Your task to perform on an android device: turn off location history Image 0: 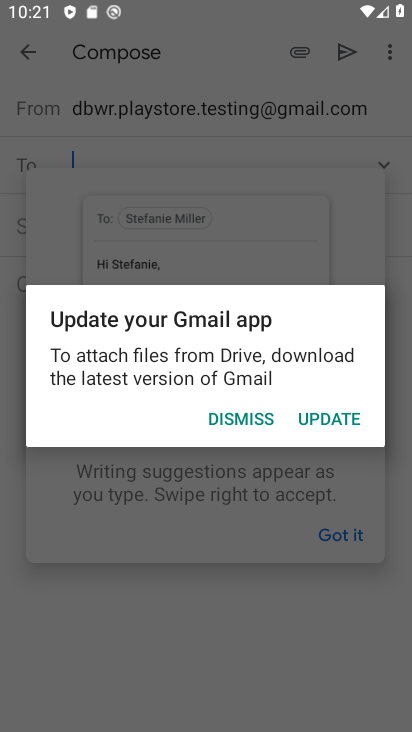
Step 0: press home button
Your task to perform on an android device: turn off location history Image 1: 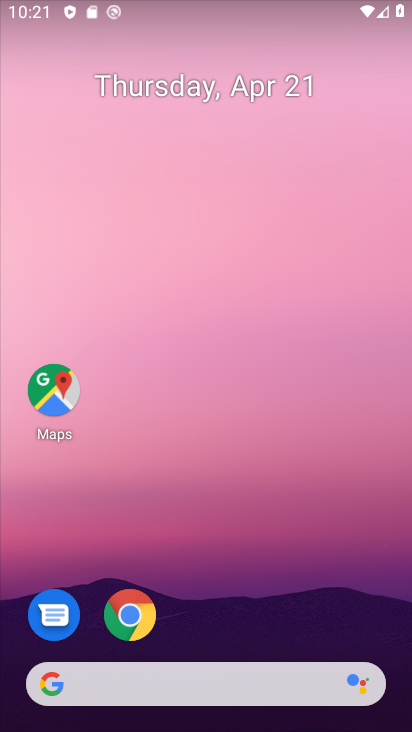
Step 1: drag from (238, 643) to (285, 50)
Your task to perform on an android device: turn off location history Image 2: 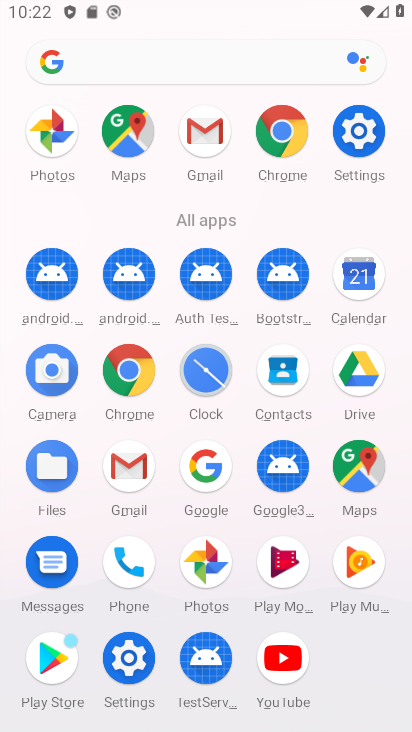
Step 2: click (356, 132)
Your task to perform on an android device: turn off location history Image 3: 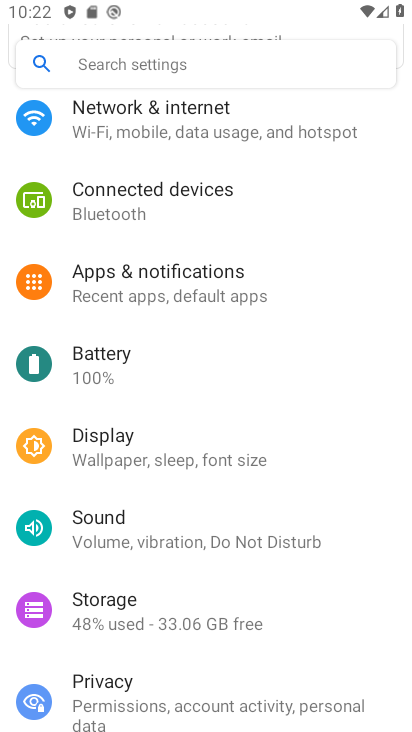
Step 3: drag from (172, 495) to (246, 236)
Your task to perform on an android device: turn off location history Image 4: 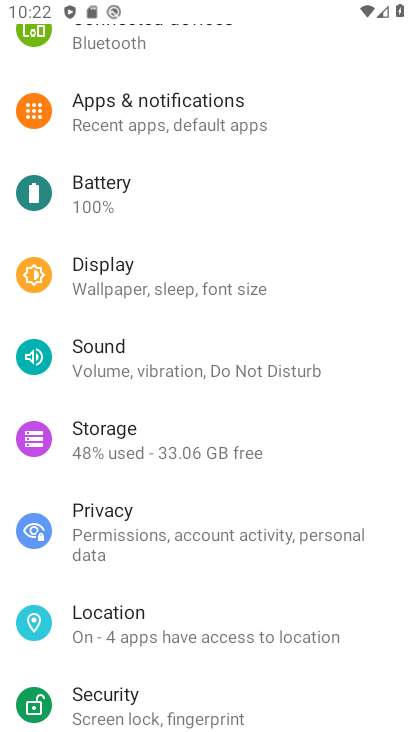
Step 4: click (218, 631)
Your task to perform on an android device: turn off location history Image 5: 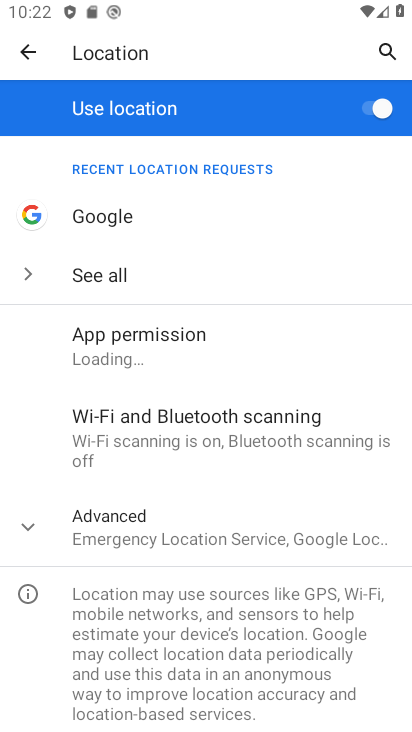
Step 5: click (174, 544)
Your task to perform on an android device: turn off location history Image 6: 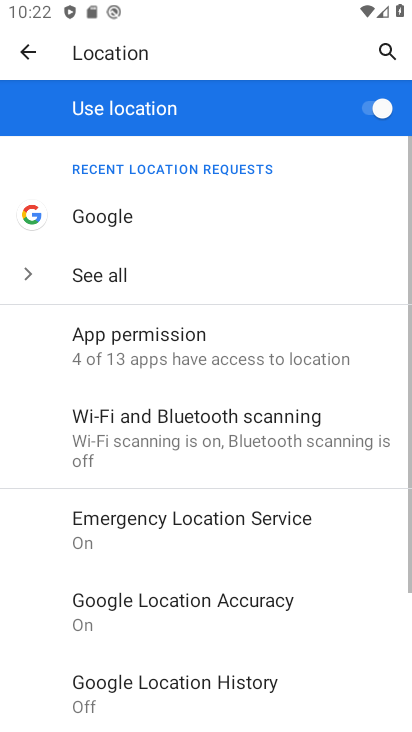
Step 6: drag from (231, 668) to (260, 447)
Your task to perform on an android device: turn off location history Image 7: 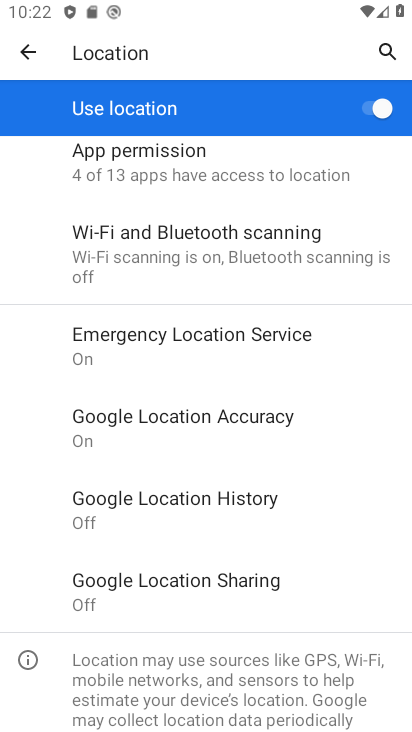
Step 7: click (220, 513)
Your task to perform on an android device: turn off location history Image 8: 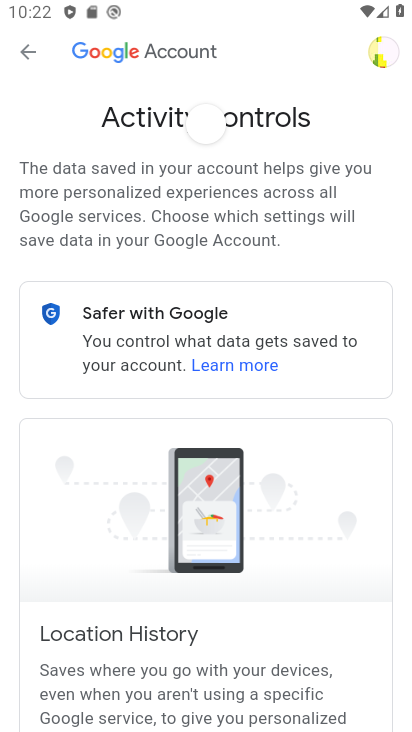
Step 8: drag from (238, 489) to (296, 156)
Your task to perform on an android device: turn off location history Image 9: 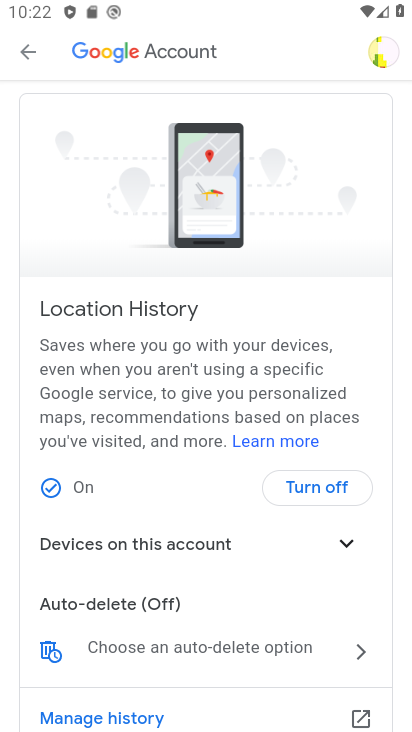
Step 9: click (336, 475)
Your task to perform on an android device: turn off location history Image 10: 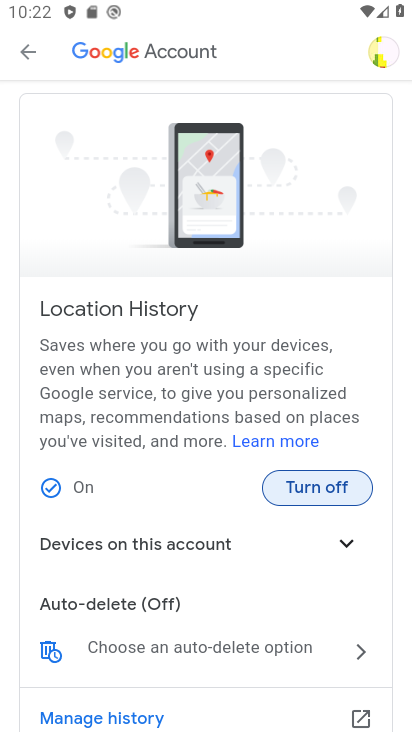
Step 10: click (339, 483)
Your task to perform on an android device: turn off location history Image 11: 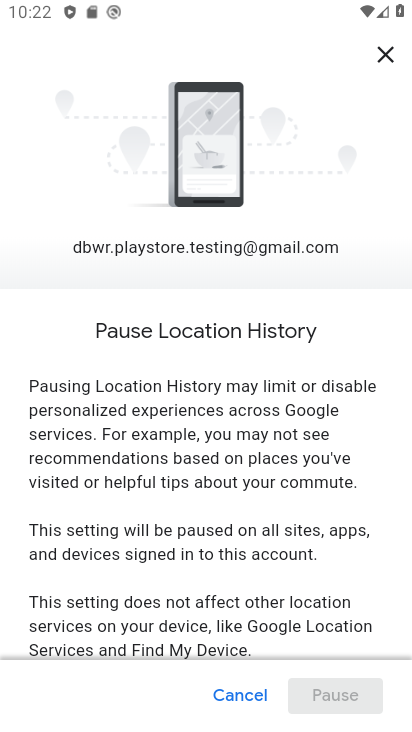
Step 11: drag from (209, 542) to (230, 163)
Your task to perform on an android device: turn off location history Image 12: 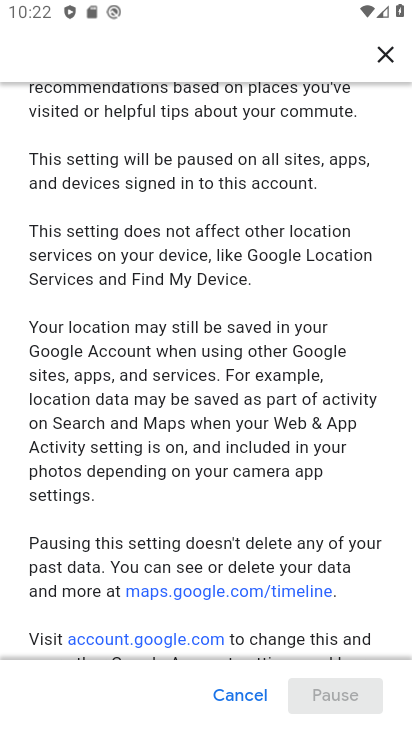
Step 12: drag from (211, 643) to (261, 236)
Your task to perform on an android device: turn off location history Image 13: 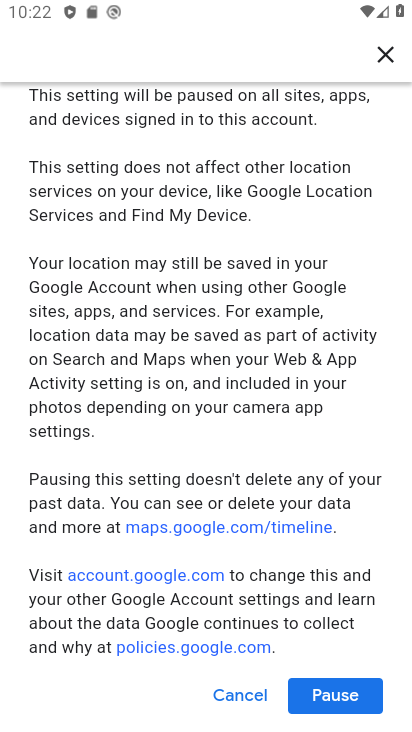
Step 13: click (325, 695)
Your task to perform on an android device: turn off location history Image 14: 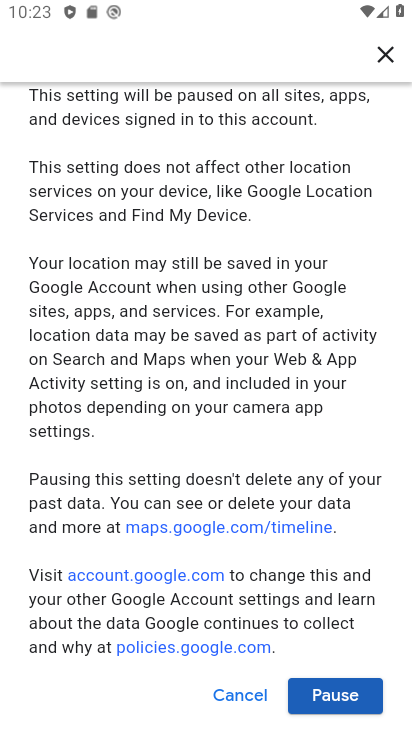
Step 14: click (350, 702)
Your task to perform on an android device: turn off location history Image 15: 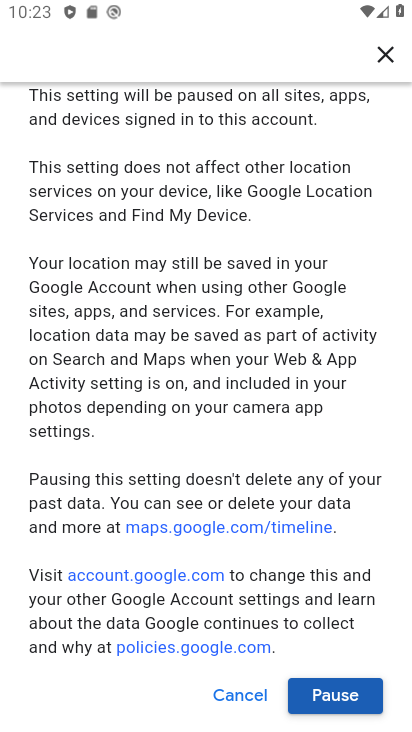
Step 15: click (349, 701)
Your task to perform on an android device: turn off location history Image 16: 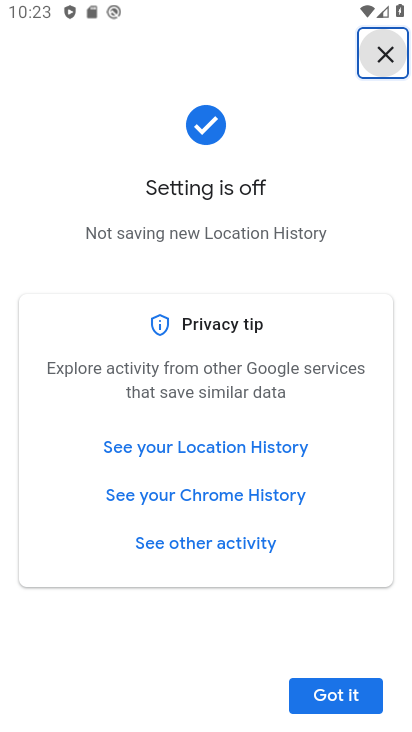
Step 16: task complete